Your task to perform on an android device: empty trash in the gmail app Image 0: 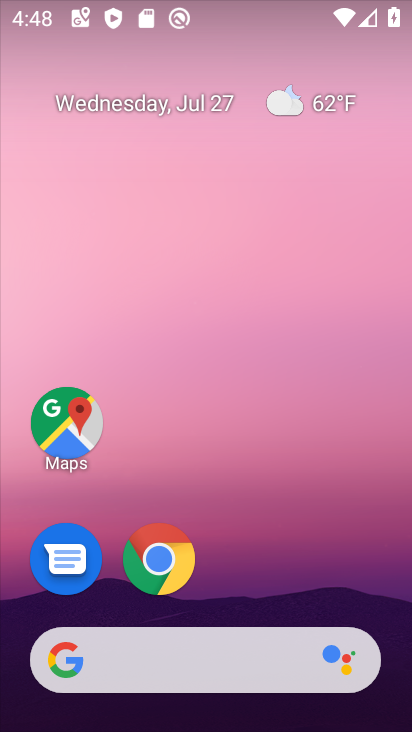
Step 0: drag from (252, 584) to (290, 10)
Your task to perform on an android device: empty trash in the gmail app Image 1: 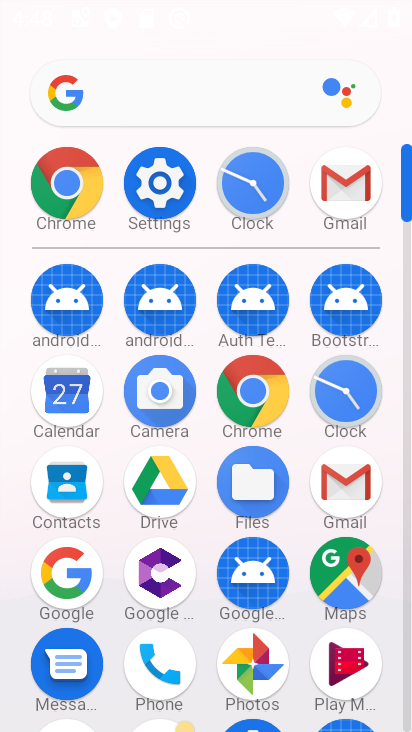
Step 1: click (344, 195)
Your task to perform on an android device: empty trash in the gmail app Image 2: 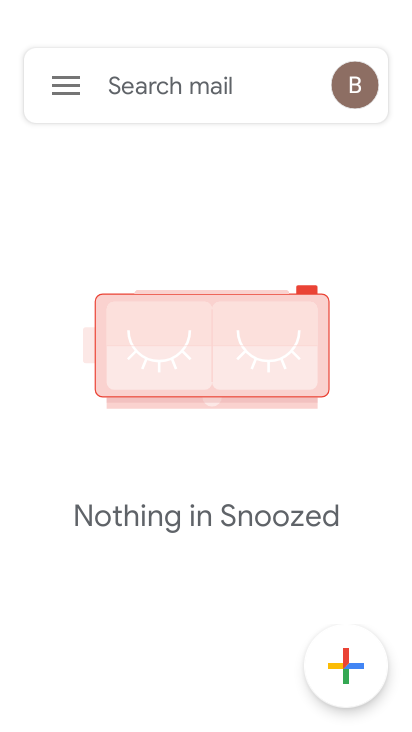
Step 2: click (75, 91)
Your task to perform on an android device: empty trash in the gmail app Image 3: 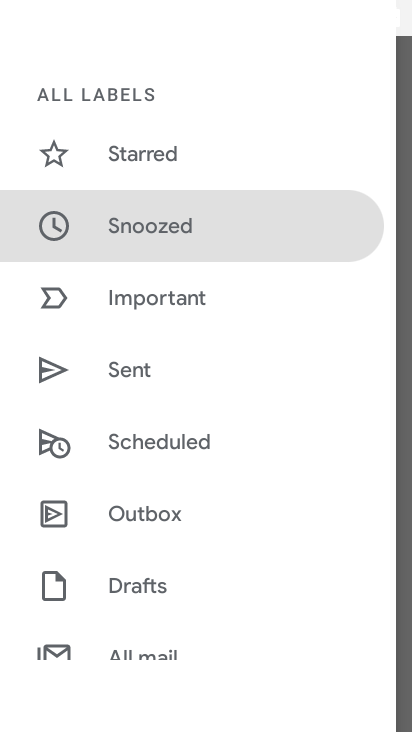
Step 3: drag from (181, 634) to (238, 228)
Your task to perform on an android device: empty trash in the gmail app Image 4: 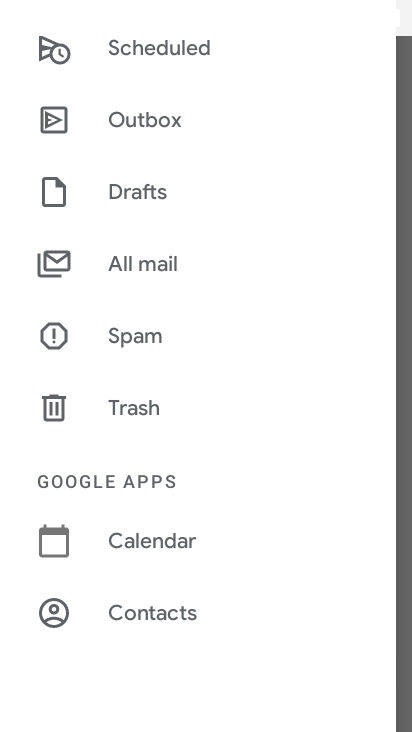
Step 4: click (112, 408)
Your task to perform on an android device: empty trash in the gmail app Image 5: 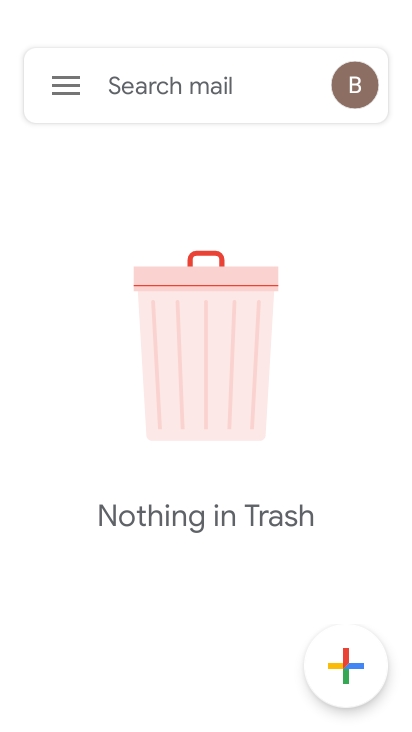
Step 5: task complete